Your task to perform on an android device: Clear the shopping cart on costco. Search for "duracell triple a" on costco, select the first entry, add it to the cart, then select checkout. Image 0: 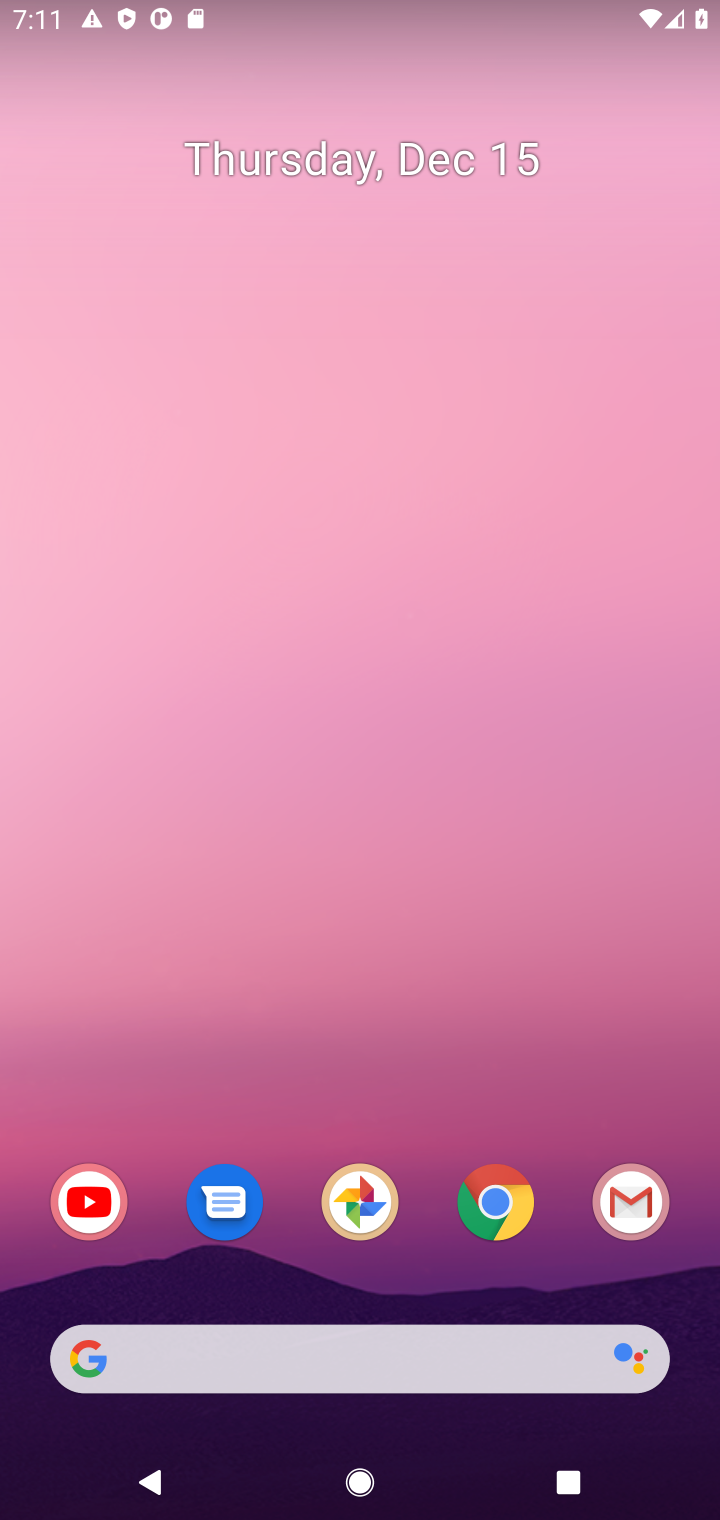
Step 0: click (481, 1211)
Your task to perform on an android device: Clear the shopping cart on costco. Search for "duracell triple a" on costco, select the first entry, add it to the cart, then select checkout. Image 1: 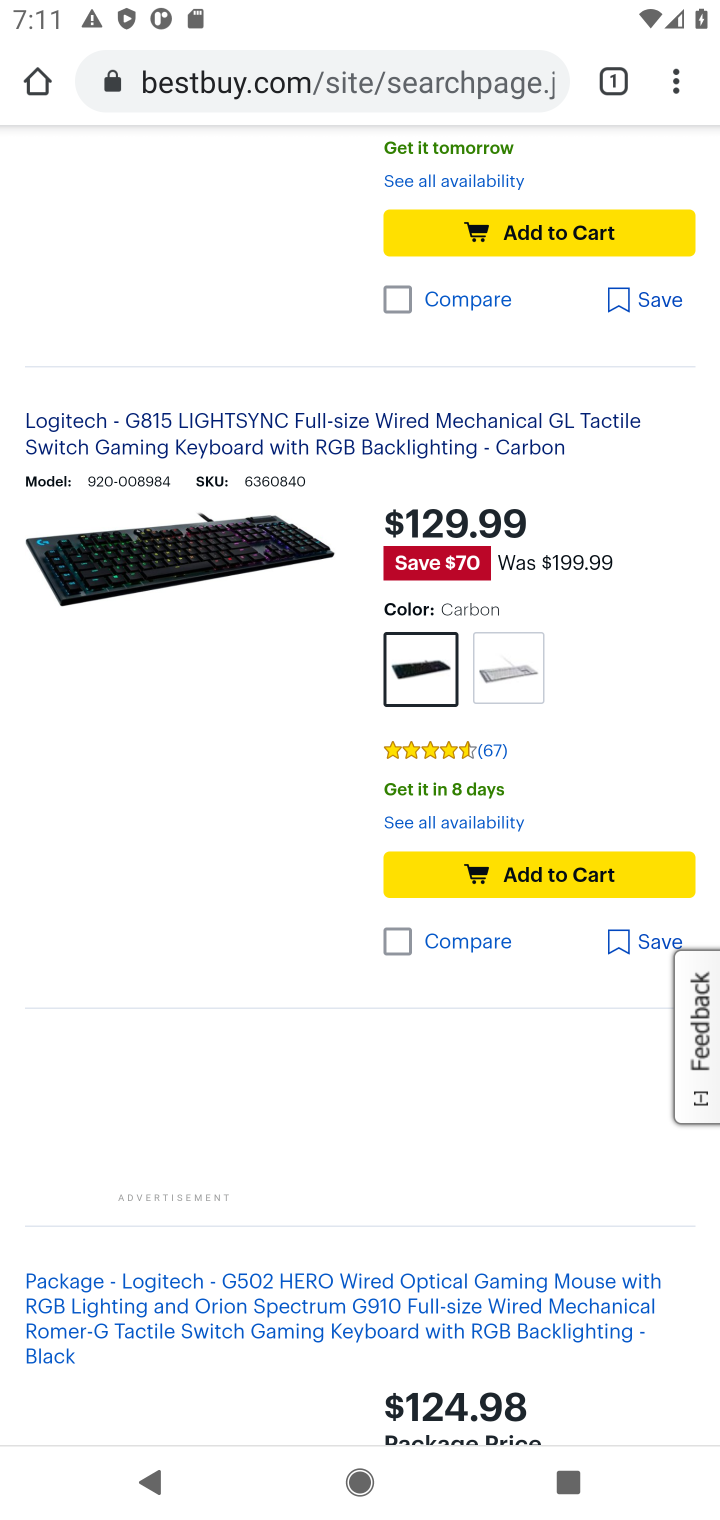
Step 1: click (312, 90)
Your task to perform on an android device: Clear the shopping cart on costco. Search for "duracell triple a" on costco, select the first entry, add it to the cart, then select checkout. Image 2: 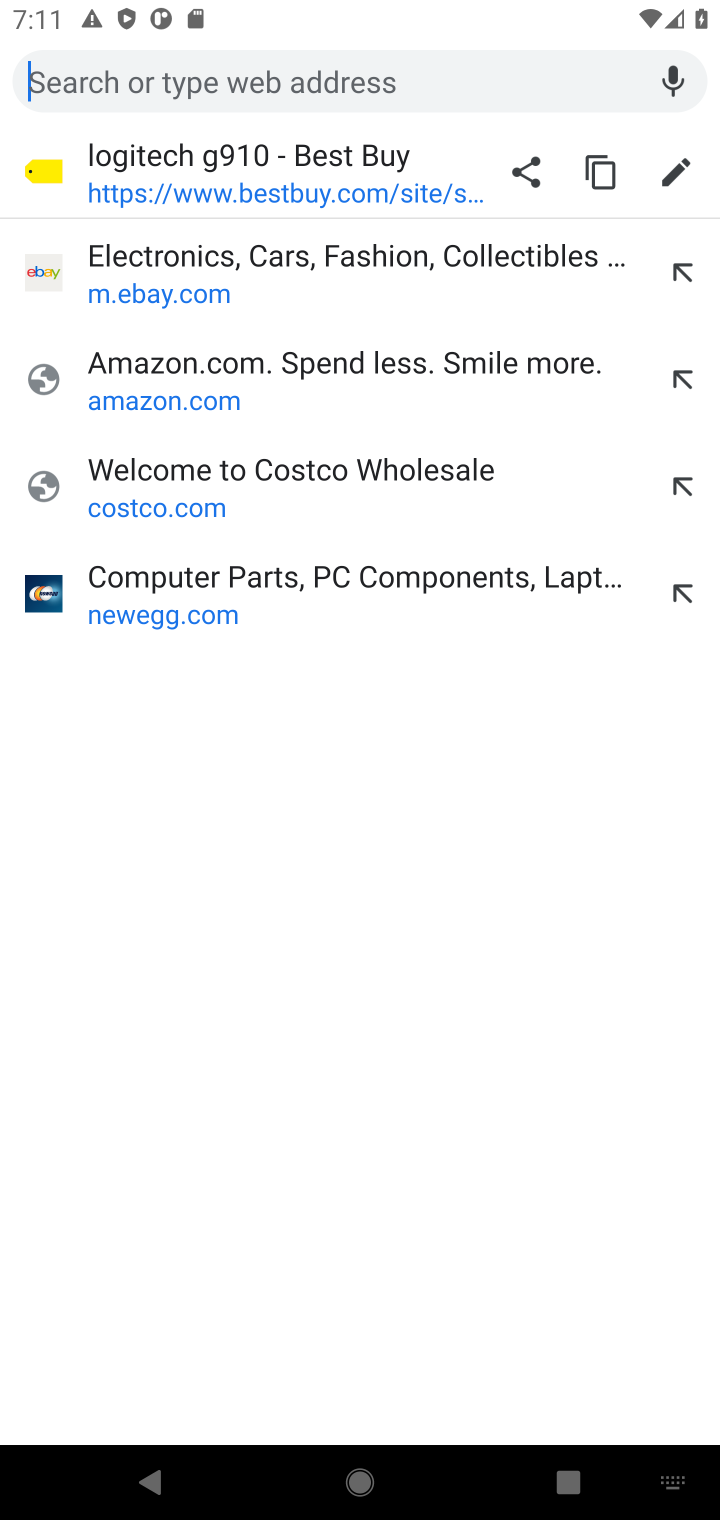
Step 2: click (137, 488)
Your task to perform on an android device: Clear the shopping cart on costco. Search for "duracell triple a" on costco, select the first entry, add it to the cart, then select checkout. Image 3: 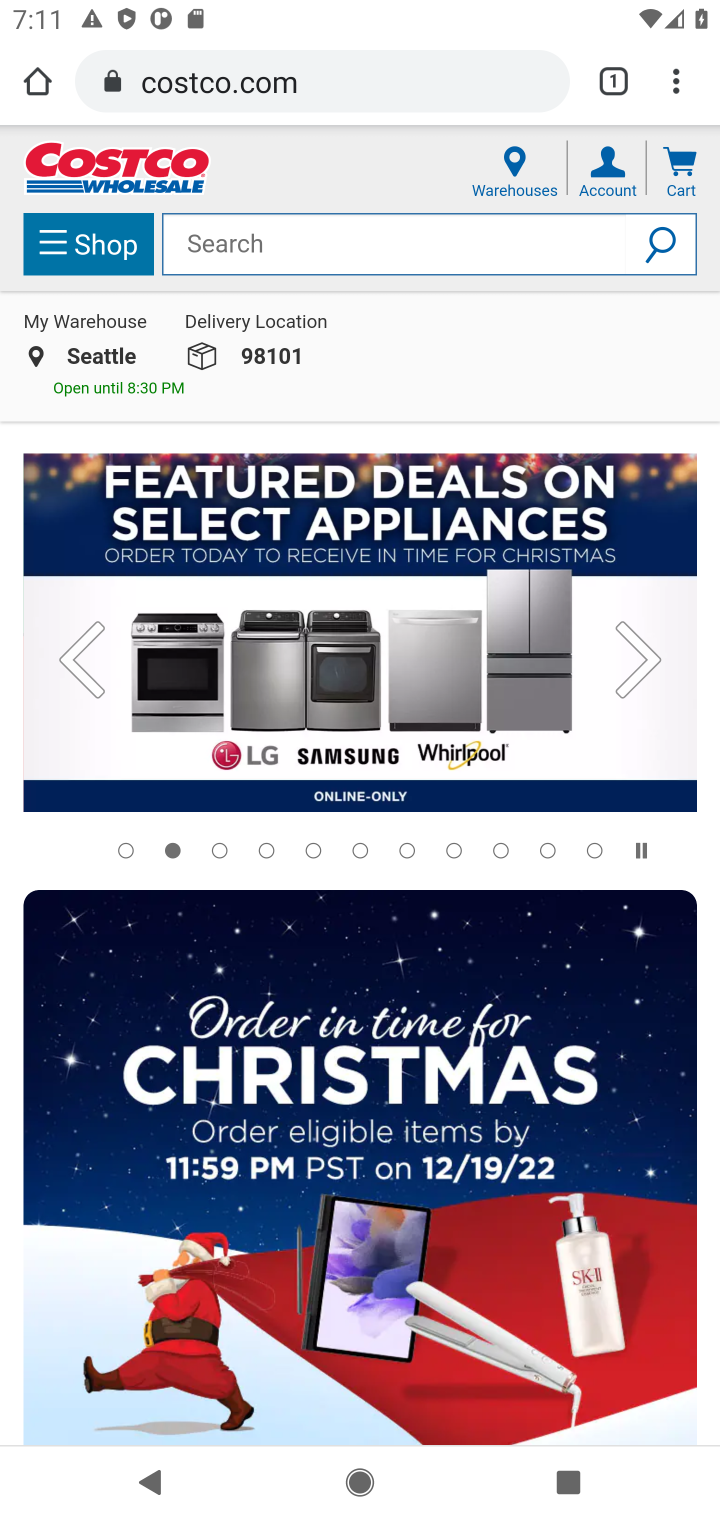
Step 3: click (682, 174)
Your task to perform on an android device: Clear the shopping cart on costco. Search for "duracell triple a" on costco, select the first entry, add it to the cart, then select checkout. Image 4: 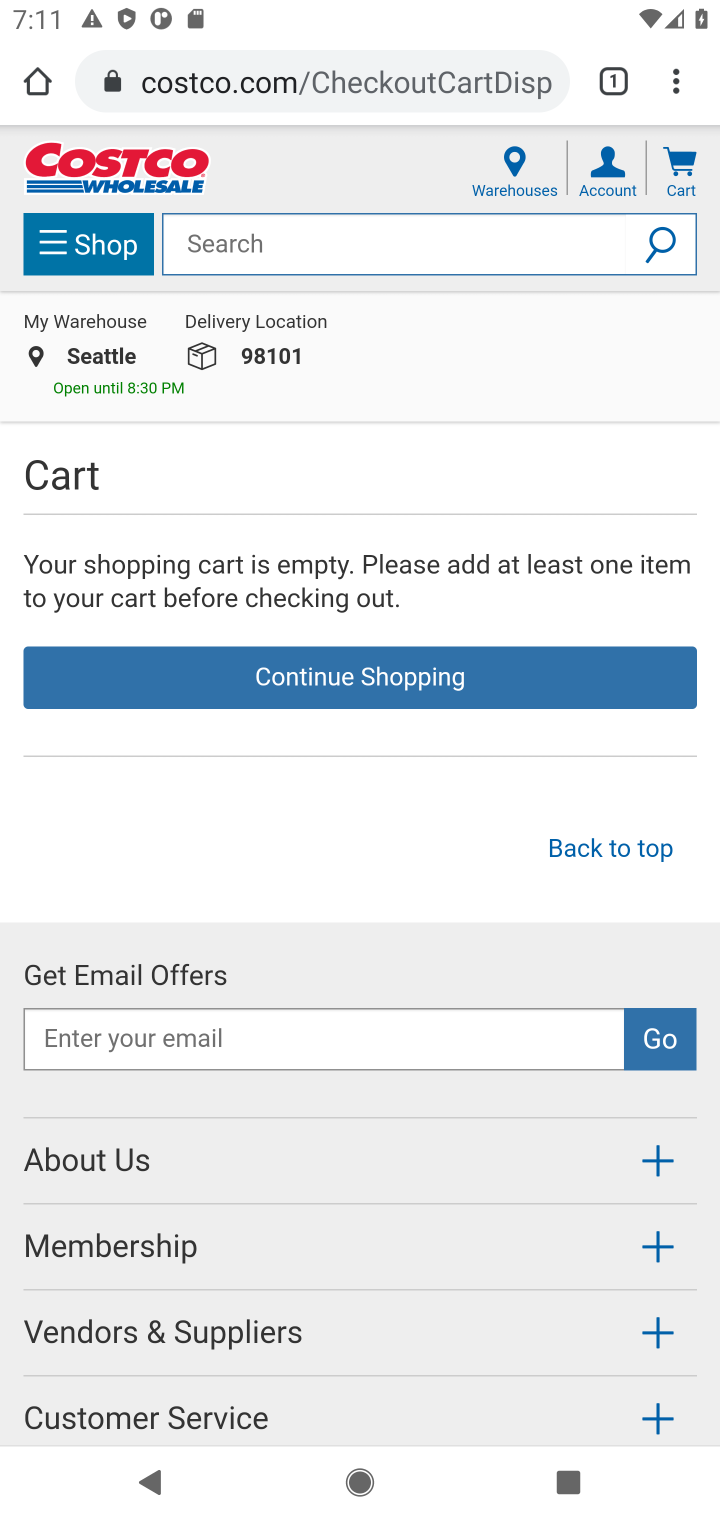
Step 4: click (253, 248)
Your task to perform on an android device: Clear the shopping cart on costco. Search for "duracell triple a" on costco, select the first entry, add it to the cart, then select checkout. Image 5: 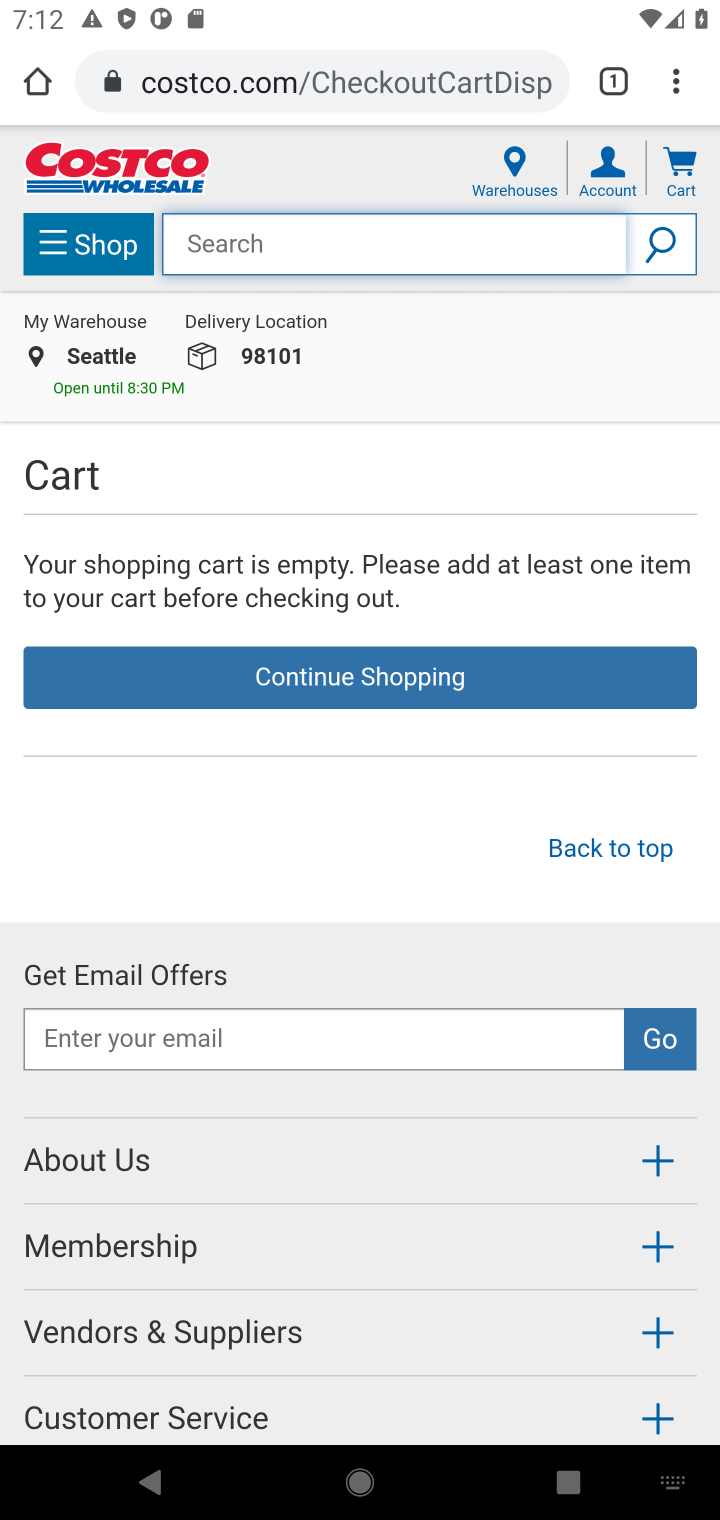
Step 5: type "duracell triple a"
Your task to perform on an android device: Clear the shopping cart on costco. Search for "duracell triple a" on costco, select the first entry, add it to the cart, then select checkout. Image 6: 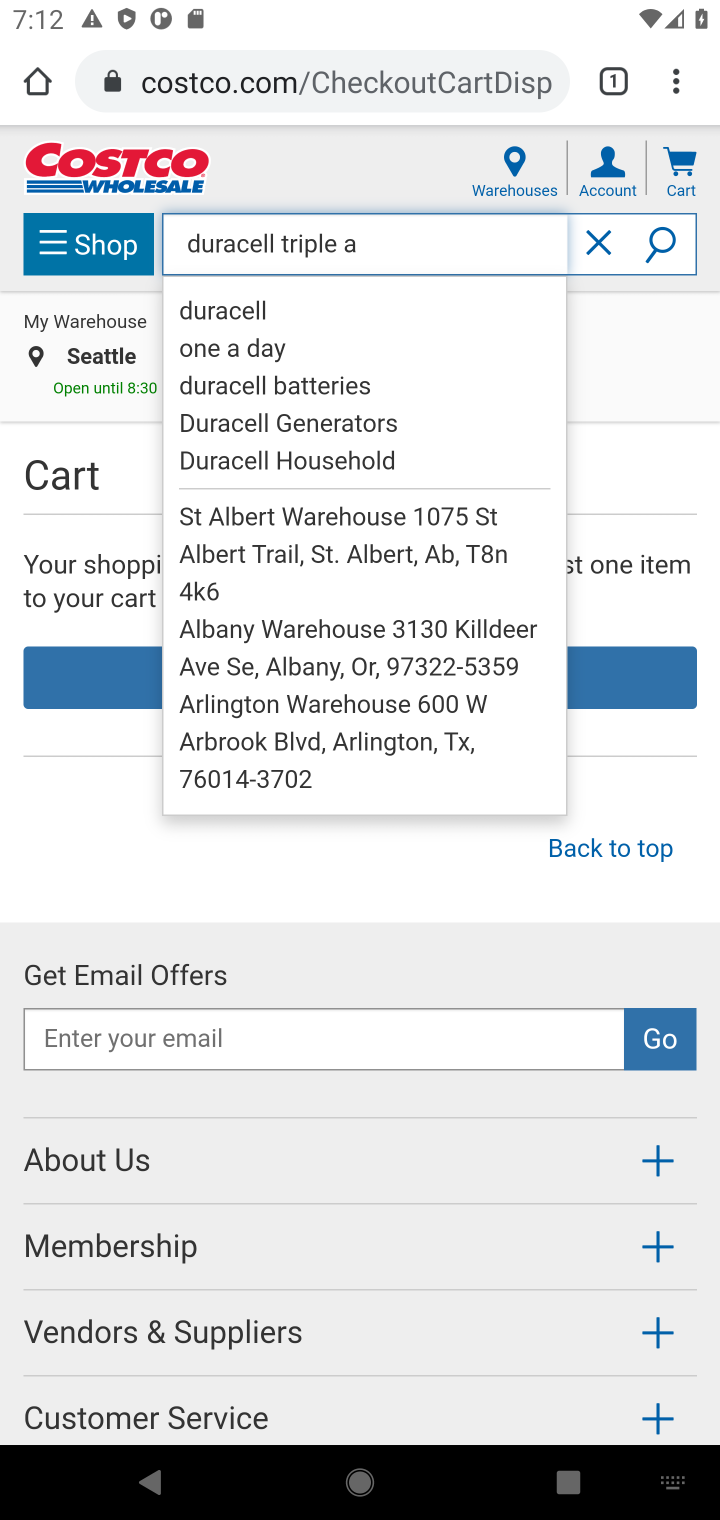
Step 6: click (656, 249)
Your task to perform on an android device: Clear the shopping cart on costco. Search for "duracell triple a" on costco, select the first entry, add it to the cart, then select checkout. Image 7: 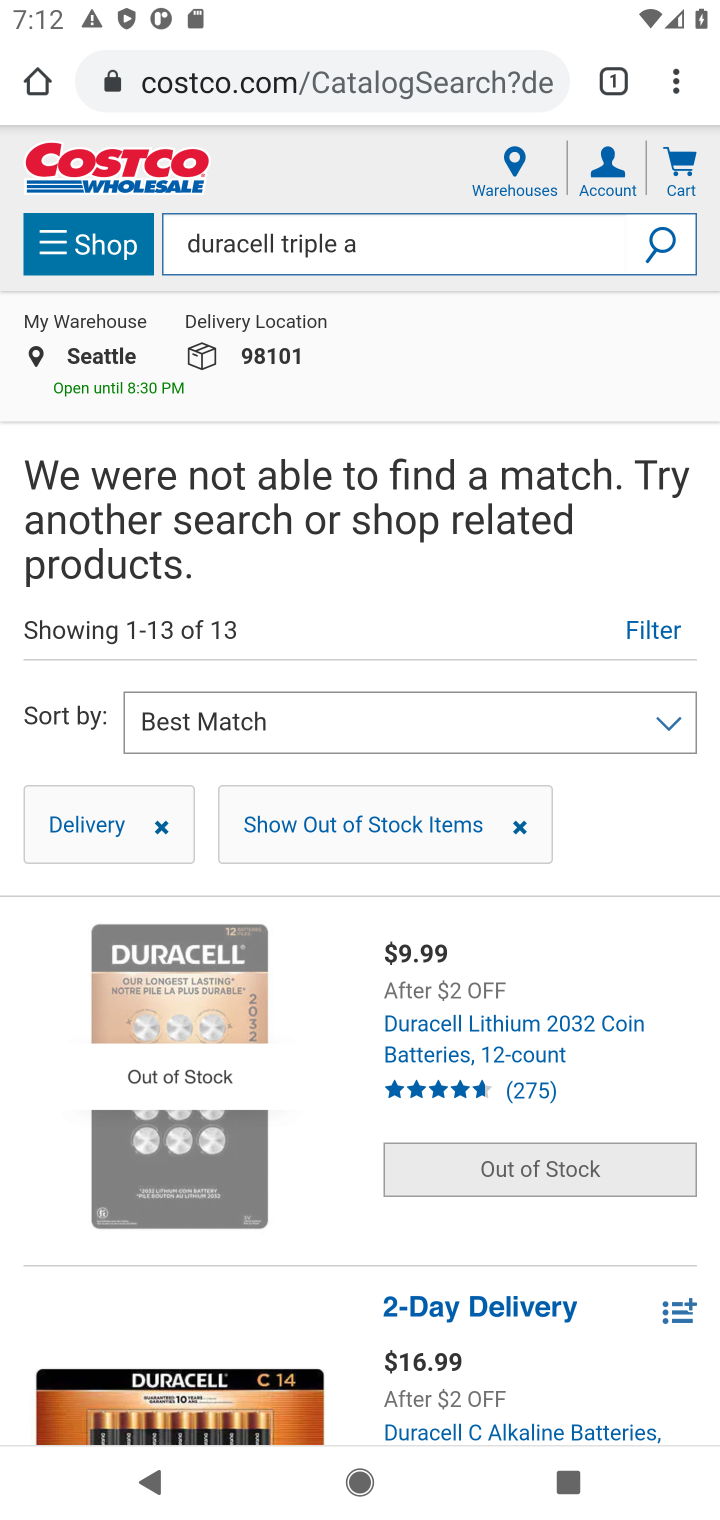
Step 7: task complete